Your task to perform on an android device: install app "Facebook Messenger" Image 0: 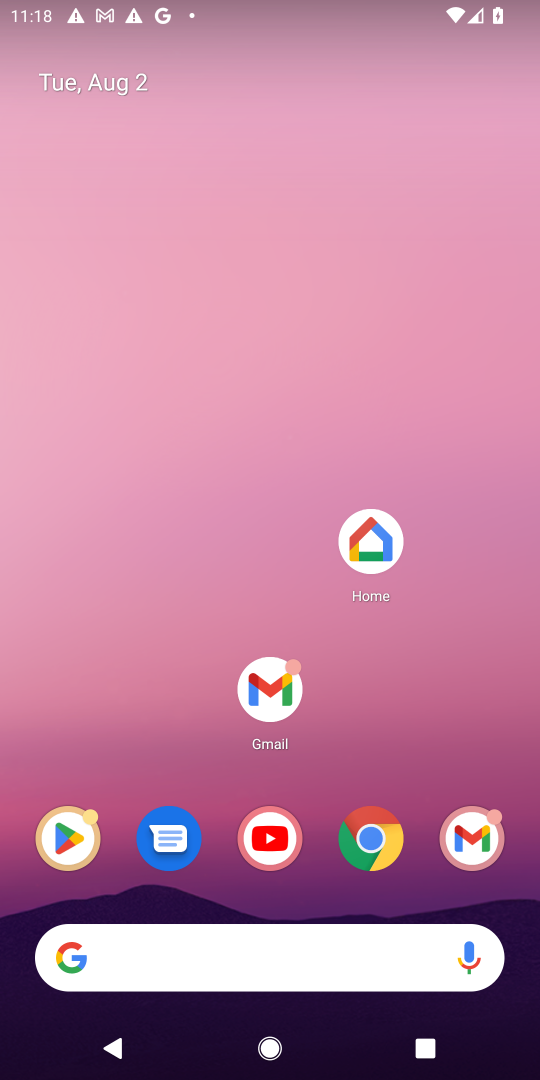
Step 0: press home button
Your task to perform on an android device: install app "Facebook Messenger" Image 1: 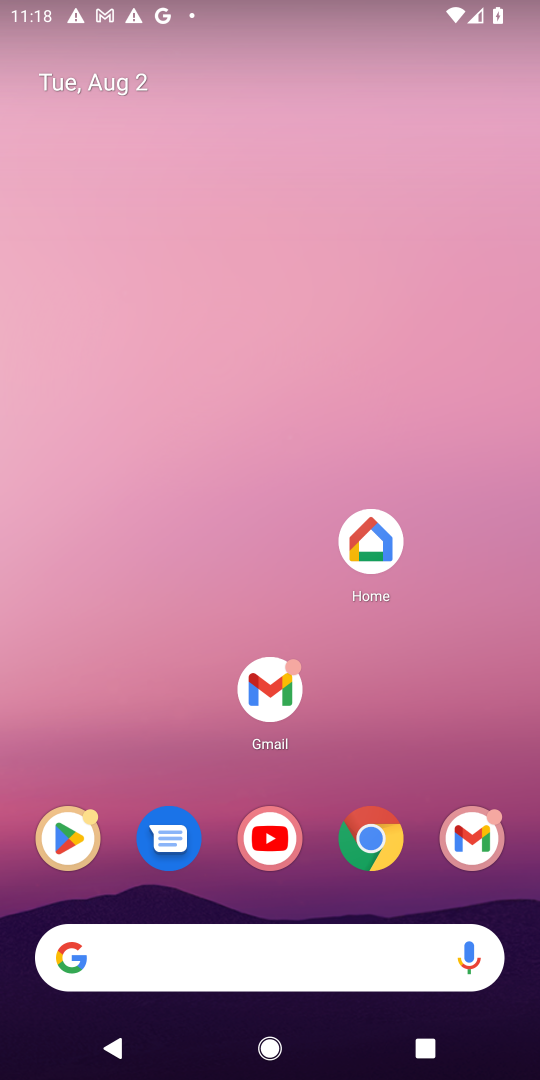
Step 1: drag from (413, 717) to (399, 84)
Your task to perform on an android device: install app "Facebook Messenger" Image 2: 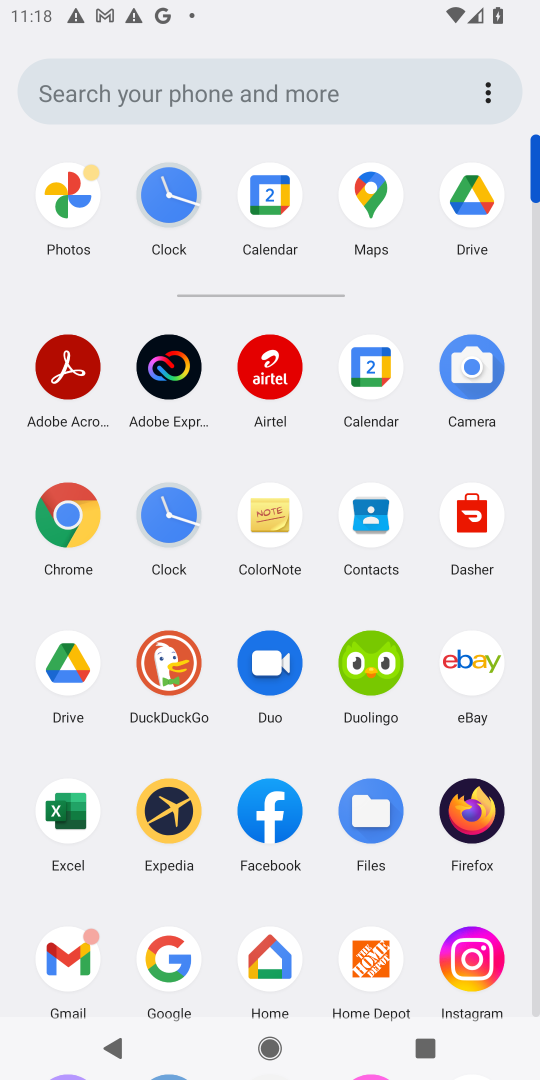
Step 2: drag from (316, 893) to (316, 530)
Your task to perform on an android device: install app "Facebook Messenger" Image 3: 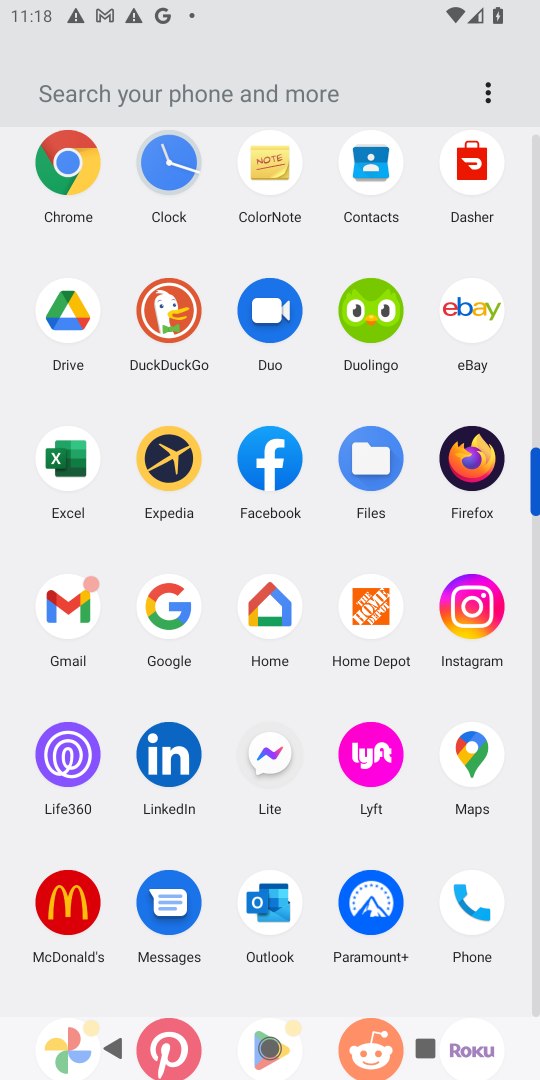
Step 3: drag from (304, 682) to (322, 373)
Your task to perform on an android device: install app "Facebook Messenger" Image 4: 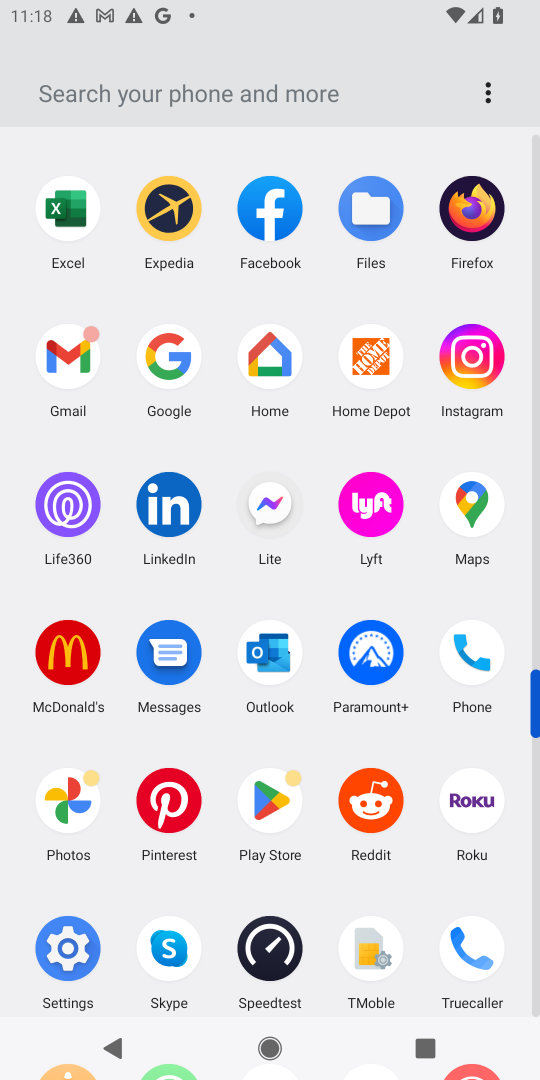
Step 4: click (269, 794)
Your task to perform on an android device: install app "Facebook Messenger" Image 5: 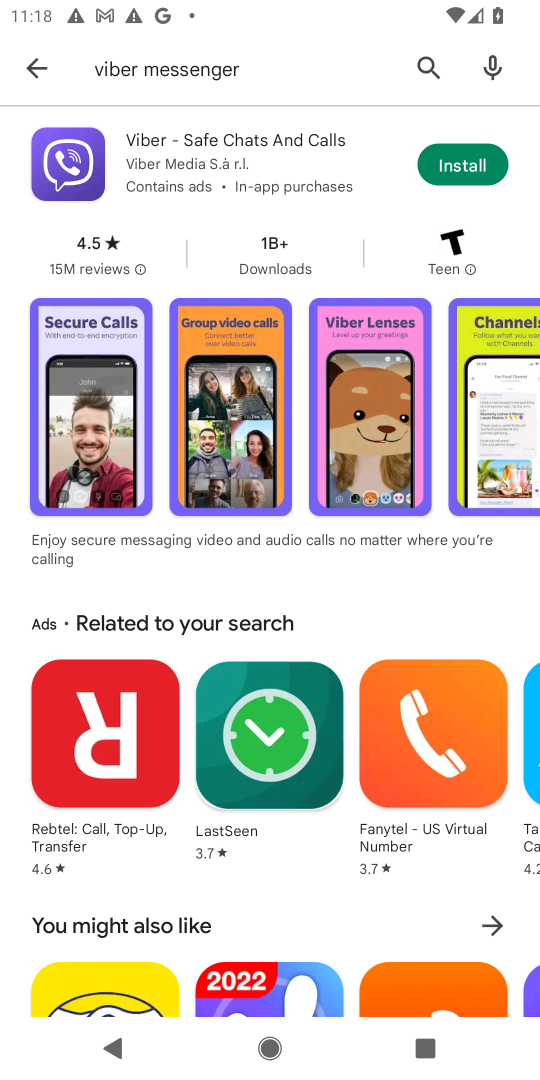
Step 5: click (425, 58)
Your task to perform on an android device: install app "Facebook Messenger" Image 6: 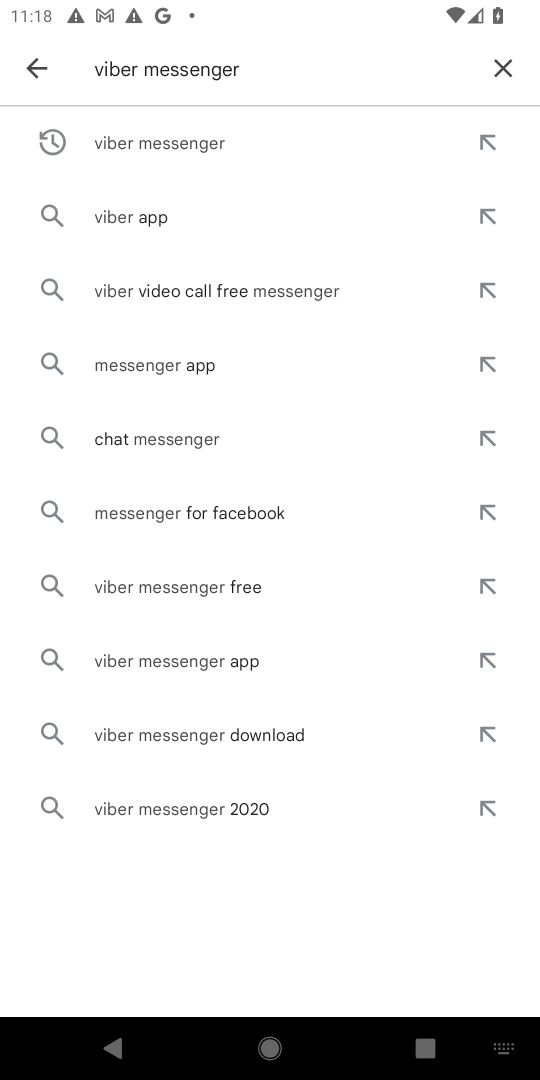
Step 6: click (498, 63)
Your task to perform on an android device: install app "Facebook Messenger" Image 7: 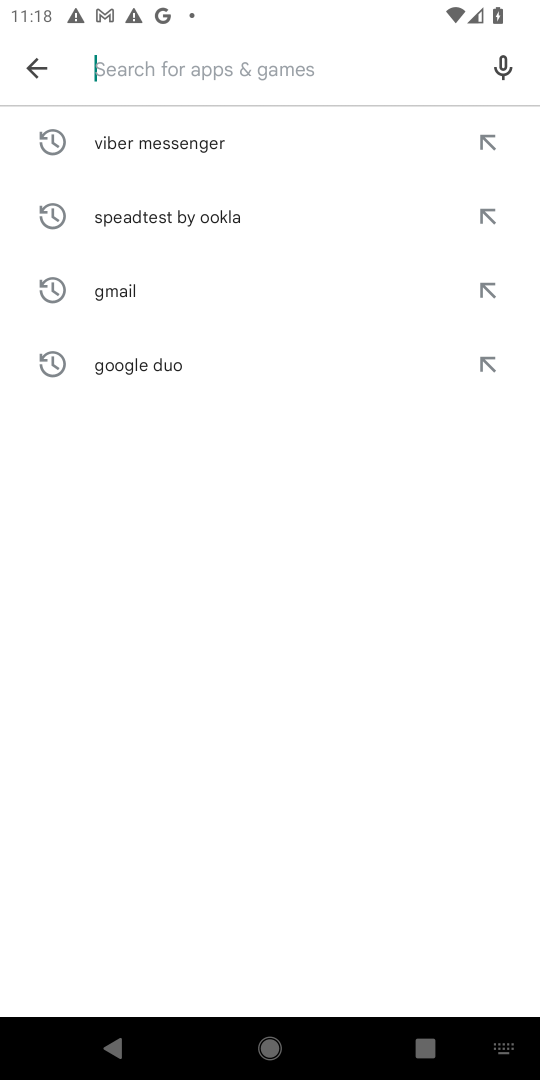
Step 7: click (358, 86)
Your task to perform on an android device: install app "Facebook Messenger" Image 8: 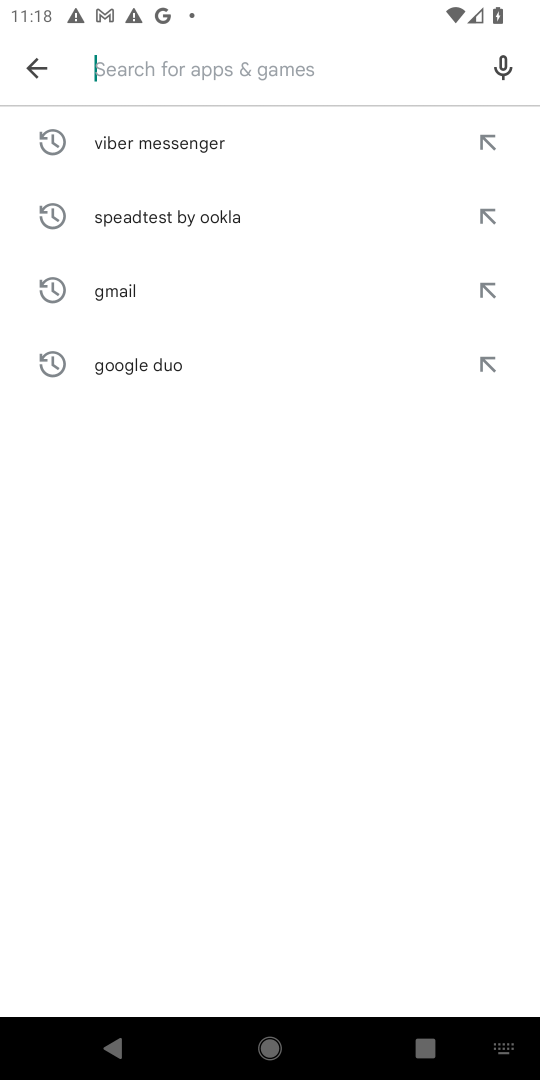
Step 8: type "facebook messenger"
Your task to perform on an android device: install app "Facebook Messenger" Image 9: 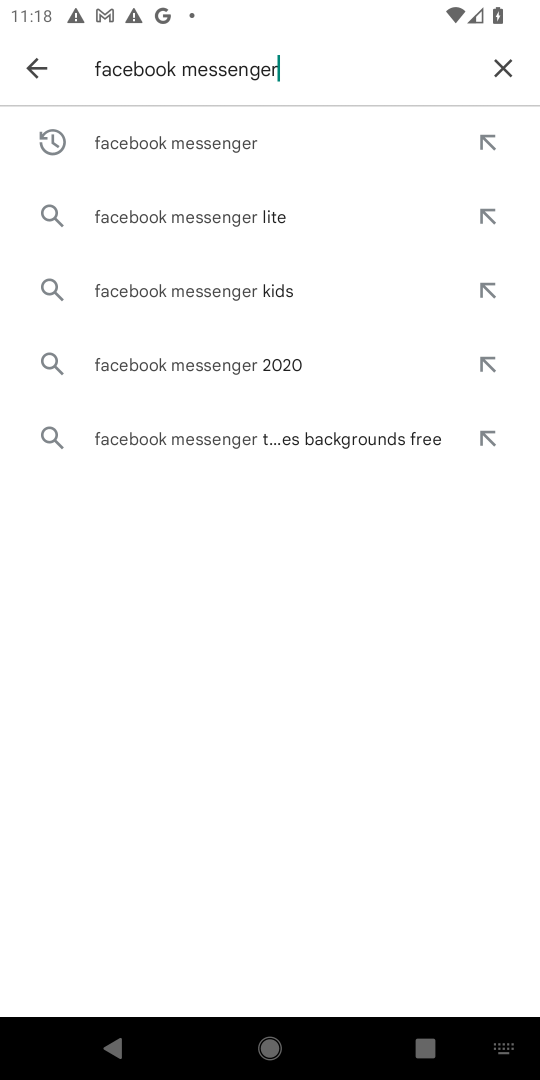
Step 9: click (320, 149)
Your task to perform on an android device: install app "Facebook Messenger" Image 10: 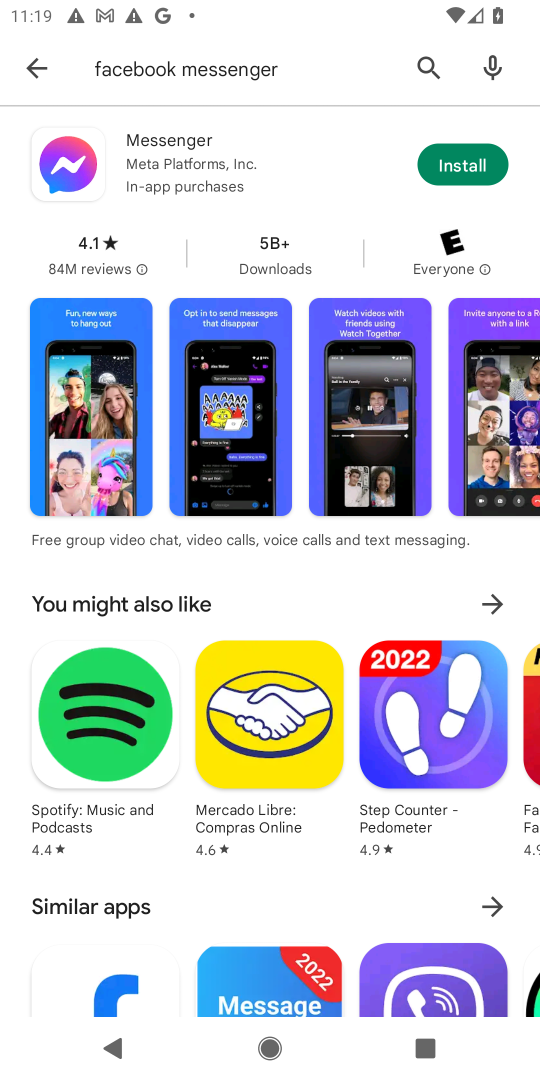
Step 10: click (477, 176)
Your task to perform on an android device: install app "Facebook Messenger" Image 11: 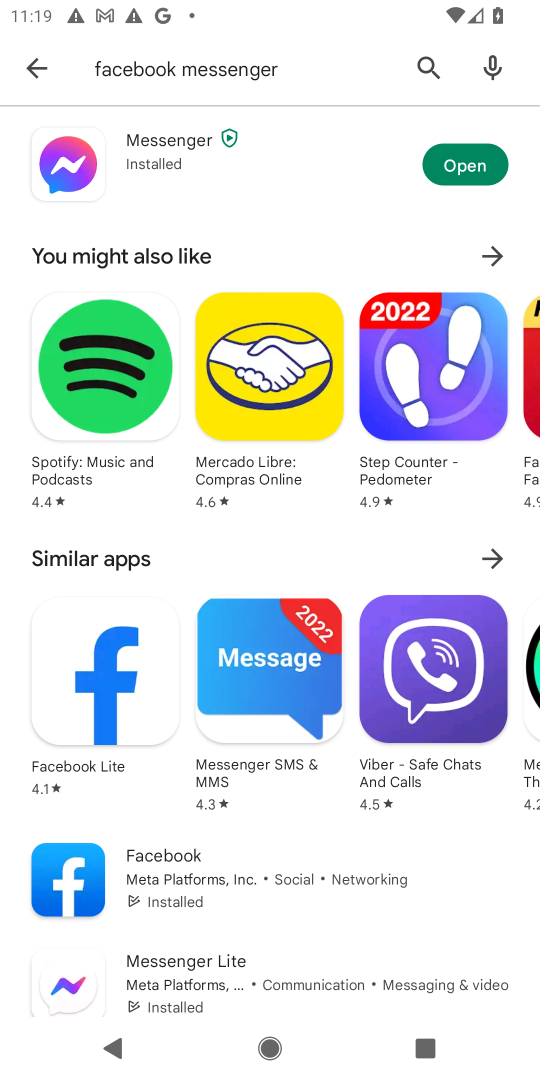
Step 11: task complete